Your task to perform on an android device: turn on improve location accuracy Image 0: 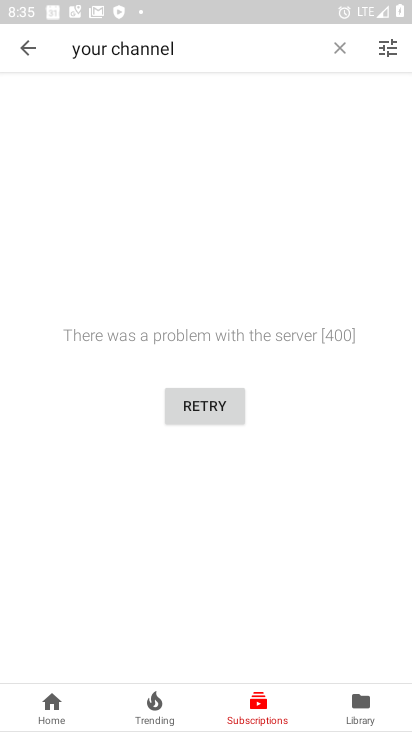
Step 0: press home button
Your task to perform on an android device: turn on improve location accuracy Image 1: 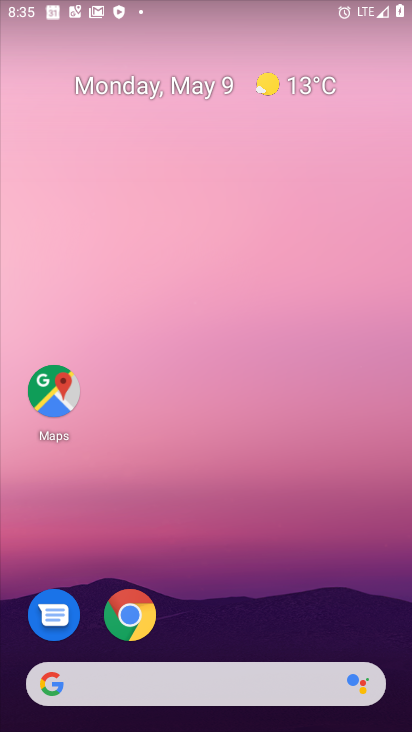
Step 1: drag from (237, 604) to (263, 159)
Your task to perform on an android device: turn on improve location accuracy Image 2: 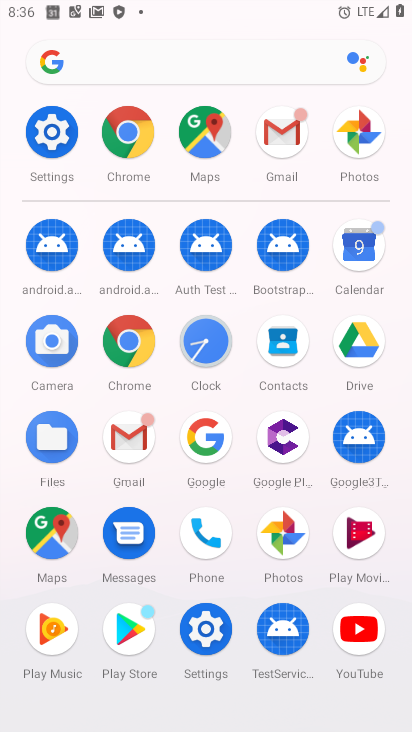
Step 2: click (53, 127)
Your task to perform on an android device: turn on improve location accuracy Image 3: 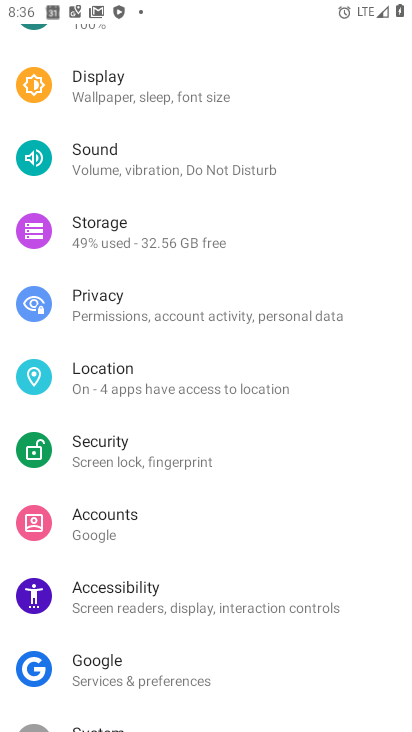
Step 3: click (129, 388)
Your task to perform on an android device: turn on improve location accuracy Image 4: 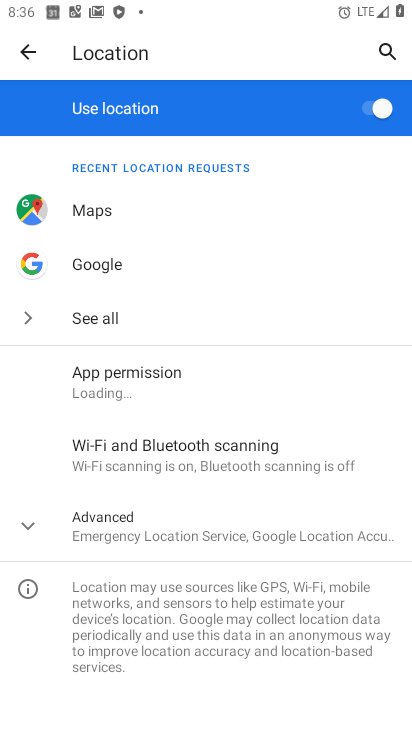
Step 4: click (109, 522)
Your task to perform on an android device: turn on improve location accuracy Image 5: 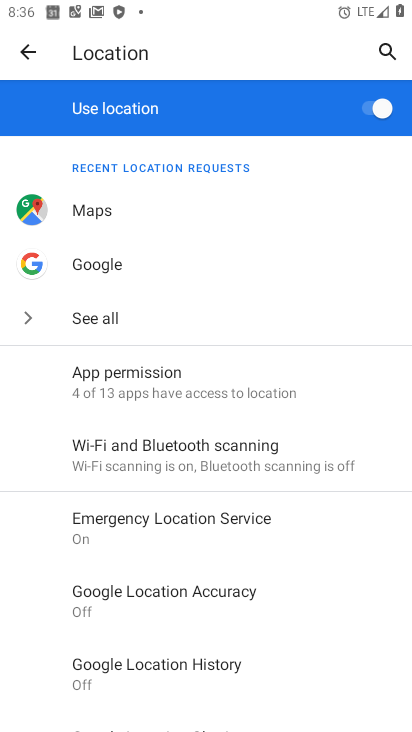
Step 5: click (137, 603)
Your task to perform on an android device: turn on improve location accuracy Image 6: 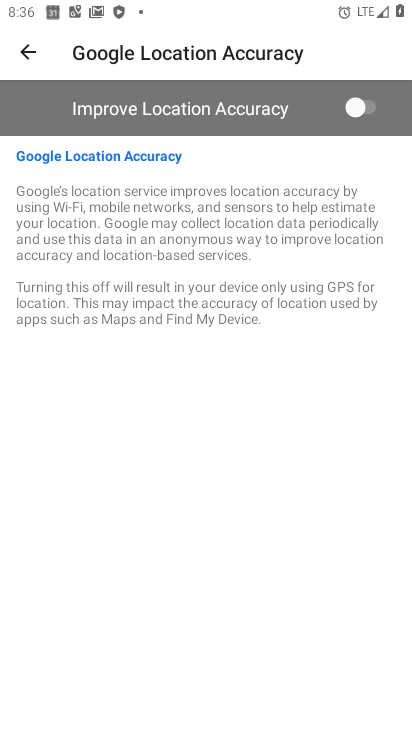
Step 6: click (357, 112)
Your task to perform on an android device: turn on improve location accuracy Image 7: 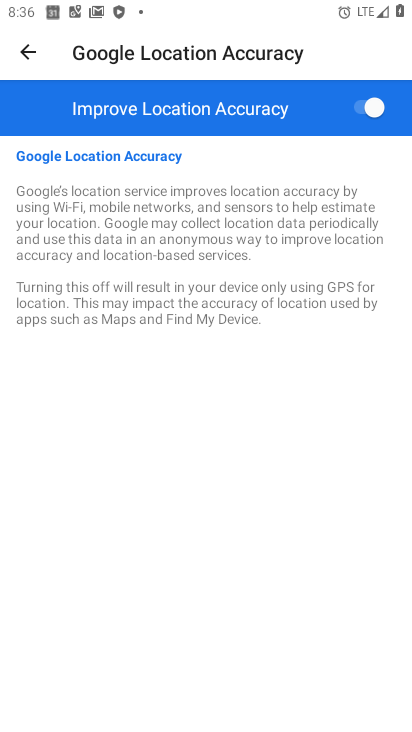
Step 7: task complete